Your task to perform on an android device: toggle pop-ups in chrome Image 0: 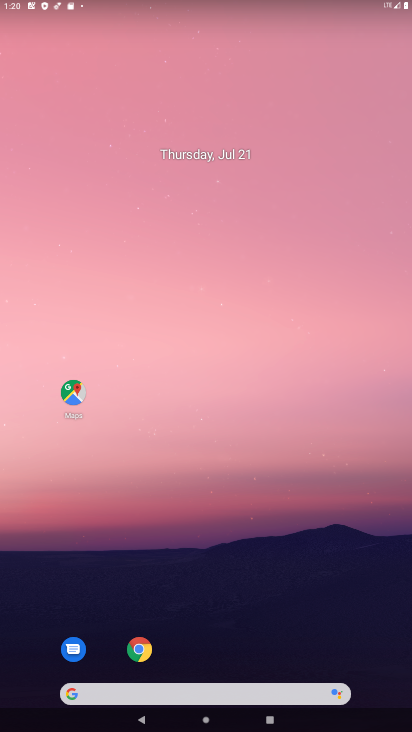
Step 0: click (133, 652)
Your task to perform on an android device: toggle pop-ups in chrome Image 1: 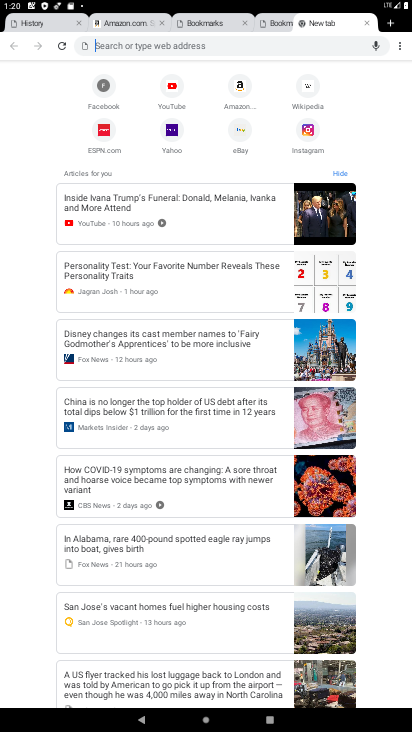
Step 1: click (401, 49)
Your task to perform on an android device: toggle pop-ups in chrome Image 2: 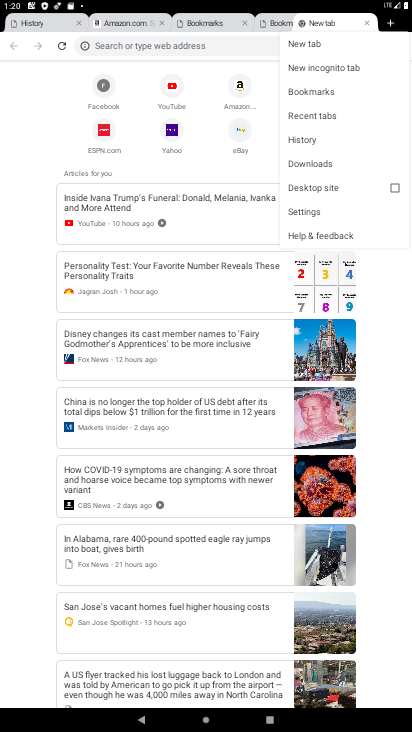
Step 2: click (311, 211)
Your task to perform on an android device: toggle pop-ups in chrome Image 3: 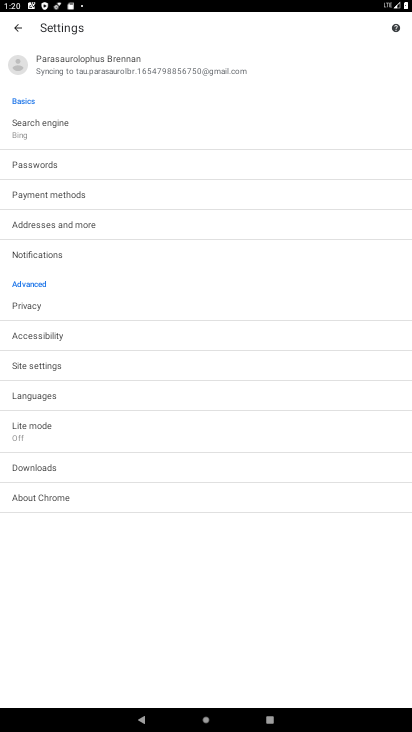
Step 3: click (28, 366)
Your task to perform on an android device: toggle pop-ups in chrome Image 4: 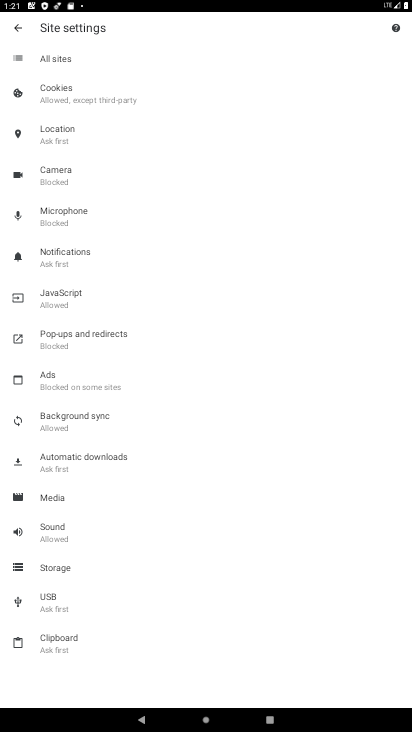
Step 4: click (65, 336)
Your task to perform on an android device: toggle pop-ups in chrome Image 5: 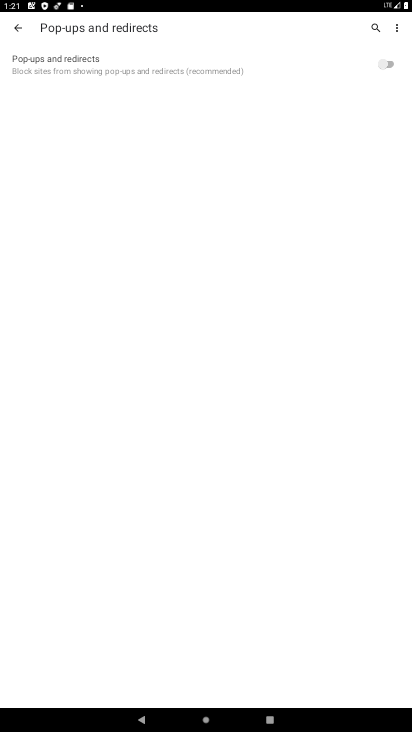
Step 5: click (392, 59)
Your task to perform on an android device: toggle pop-ups in chrome Image 6: 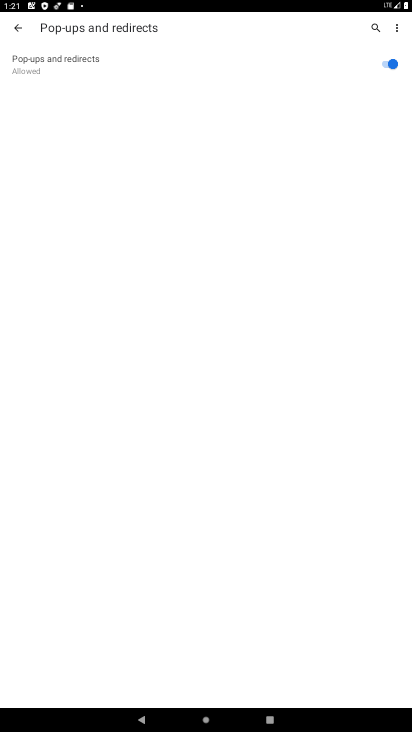
Step 6: task complete